Your task to perform on an android device: uninstall "Venmo" Image 0: 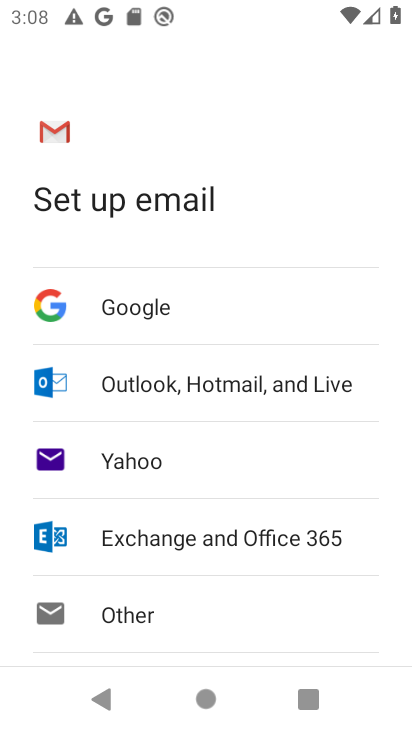
Step 0: press home button
Your task to perform on an android device: uninstall "Venmo" Image 1: 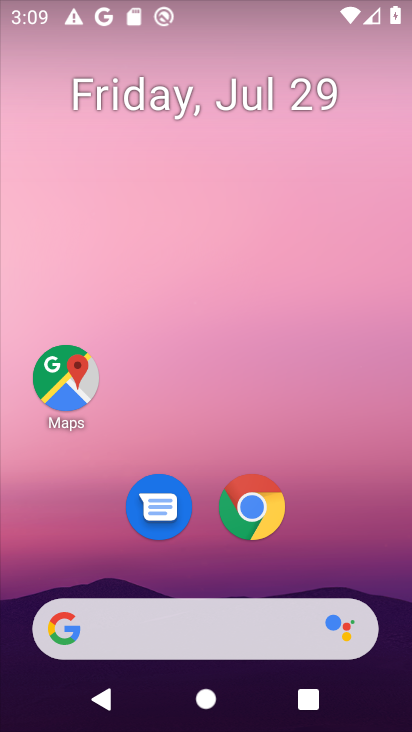
Step 1: drag from (304, 577) to (251, 22)
Your task to perform on an android device: uninstall "Venmo" Image 2: 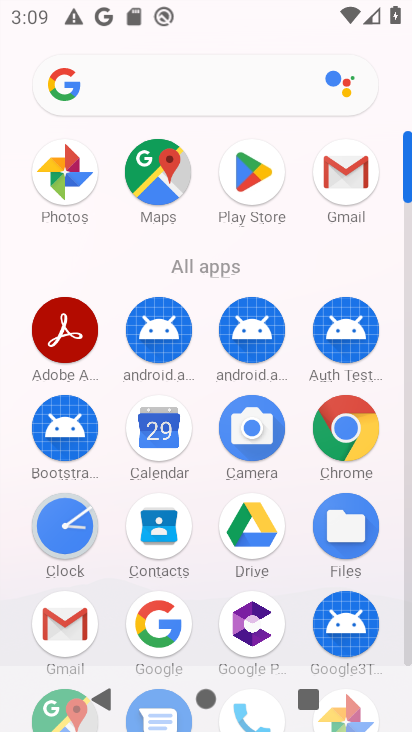
Step 2: click (219, 79)
Your task to perform on an android device: uninstall "Venmo" Image 3: 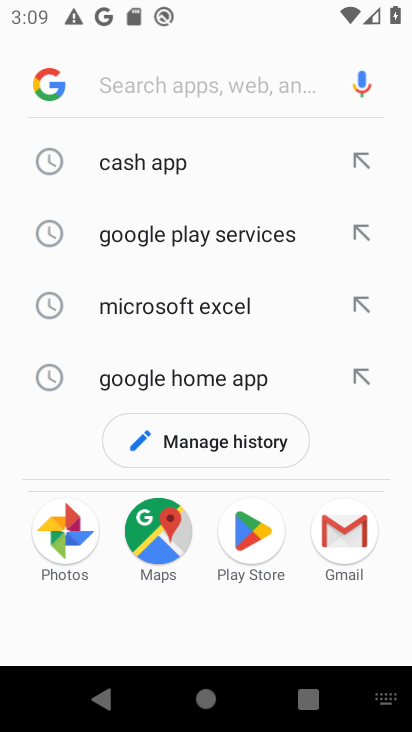
Step 3: type "vemmo"
Your task to perform on an android device: uninstall "Venmo" Image 4: 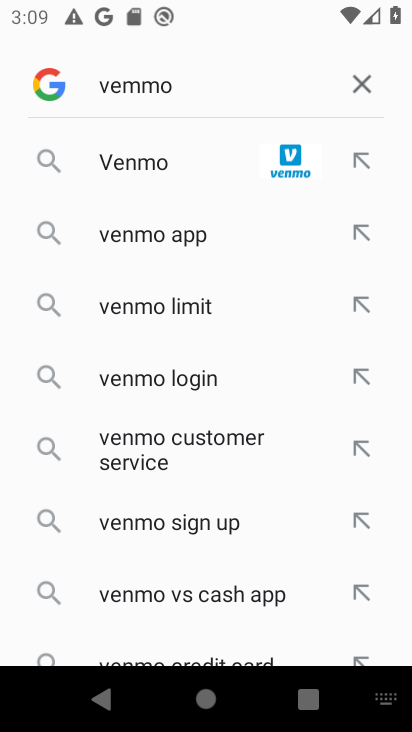
Step 4: click (346, 160)
Your task to perform on an android device: uninstall "Venmo" Image 5: 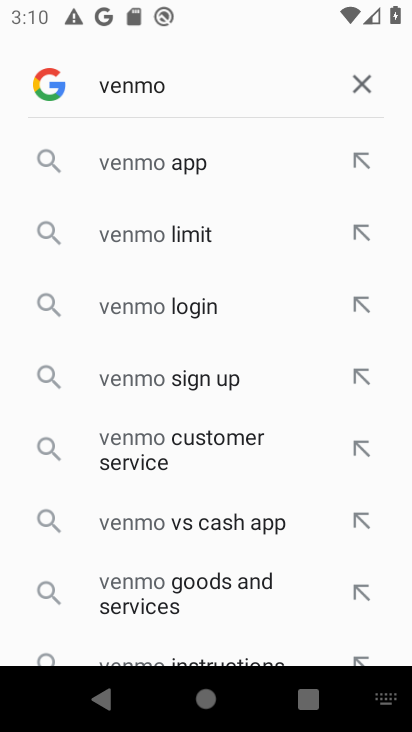
Step 5: click (223, 173)
Your task to perform on an android device: uninstall "Venmo" Image 6: 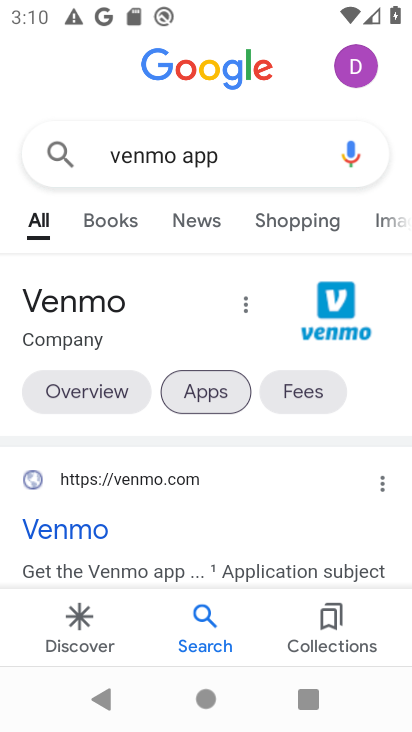
Step 6: task complete